Your task to perform on an android device: delete the emails in spam in the gmail app Image 0: 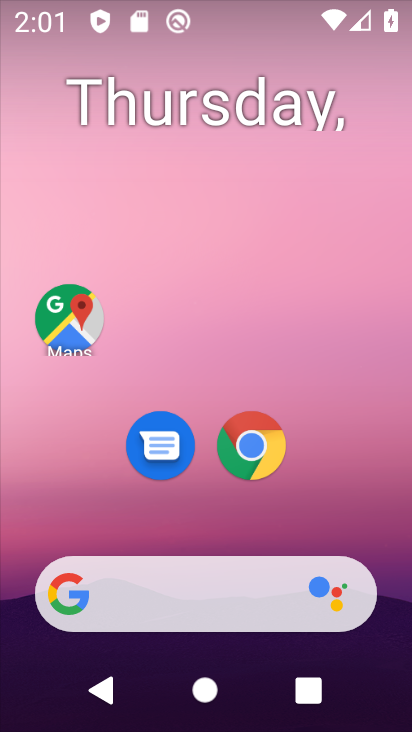
Step 0: drag from (1, 583) to (215, 166)
Your task to perform on an android device: delete the emails in spam in the gmail app Image 1: 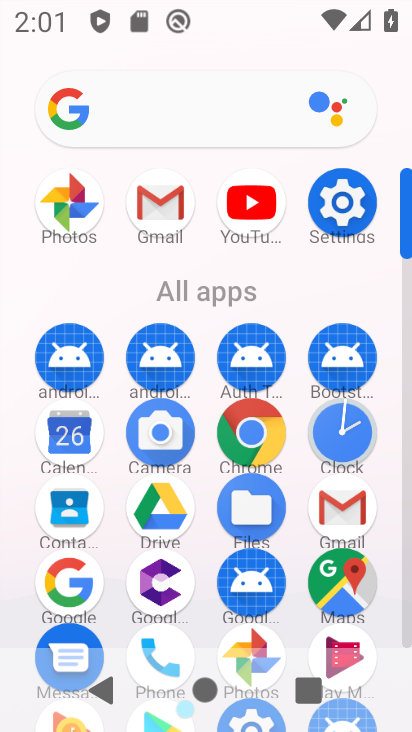
Step 1: click (138, 201)
Your task to perform on an android device: delete the emails in spam in the gmail app Image 2: 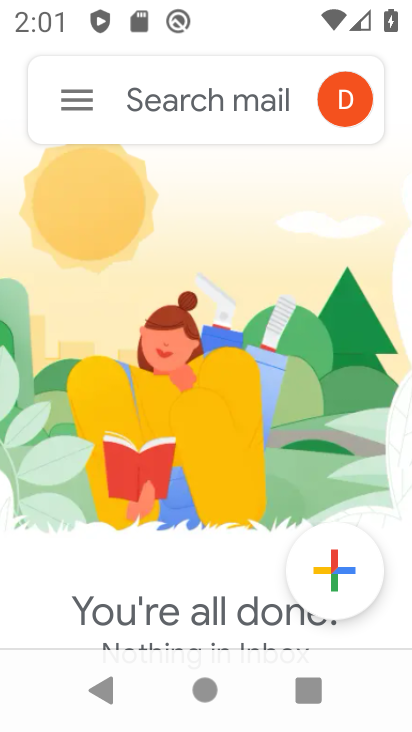
Step 2: click (65, 106)
Your task to perform on an android device: delete the emails in spam in the gmail app Image 3: 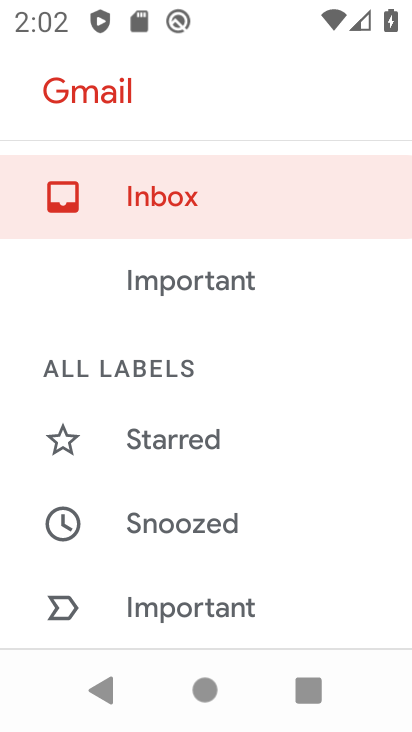
Step 3: drag from (27, 542) to (303, 132)
Your task to perform on an android device: delete the emails in spam in the gmail app Image 4: 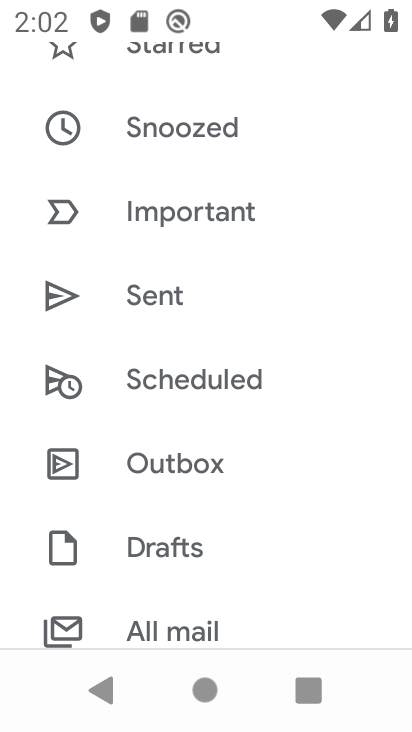
Step 4: click (134, 628)
Your task to perform on an android device: delete the emails in spam in the gmail app Image 5: 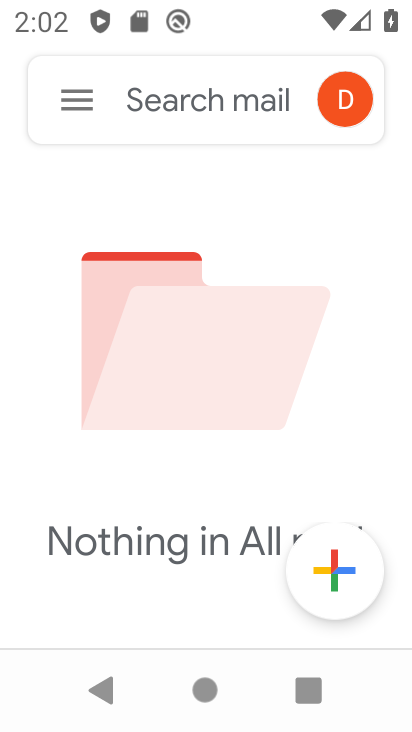
Step 5: task complete